Your task to perform on an android device: uninstall "Walmart Shopping & Grocery" Image 0: 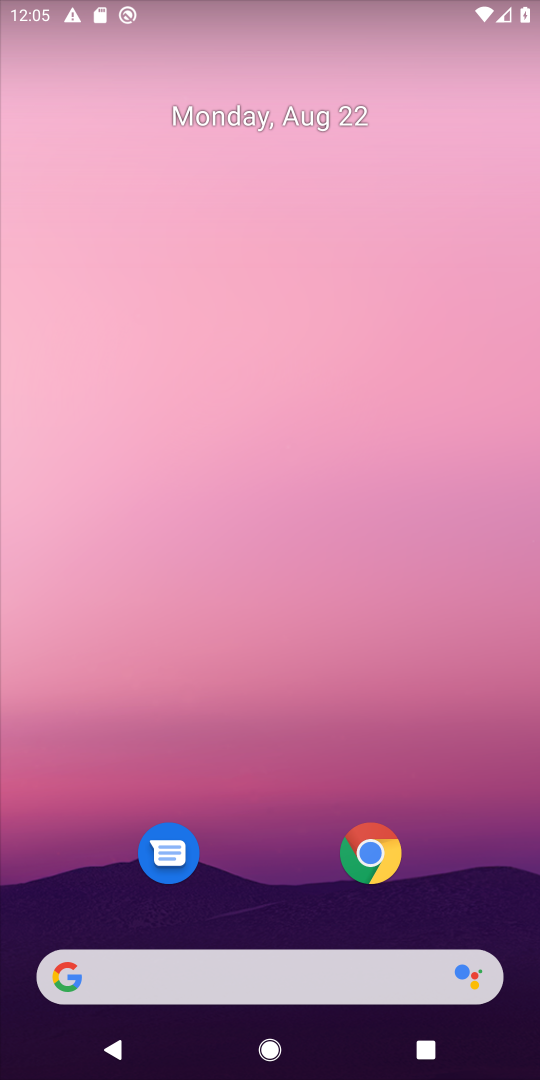
Step 0: drag from (247, 811) to (247, 495)
Your task to perform on an android device: uninstall "Walmart Shopping & Grocery" Image 1: 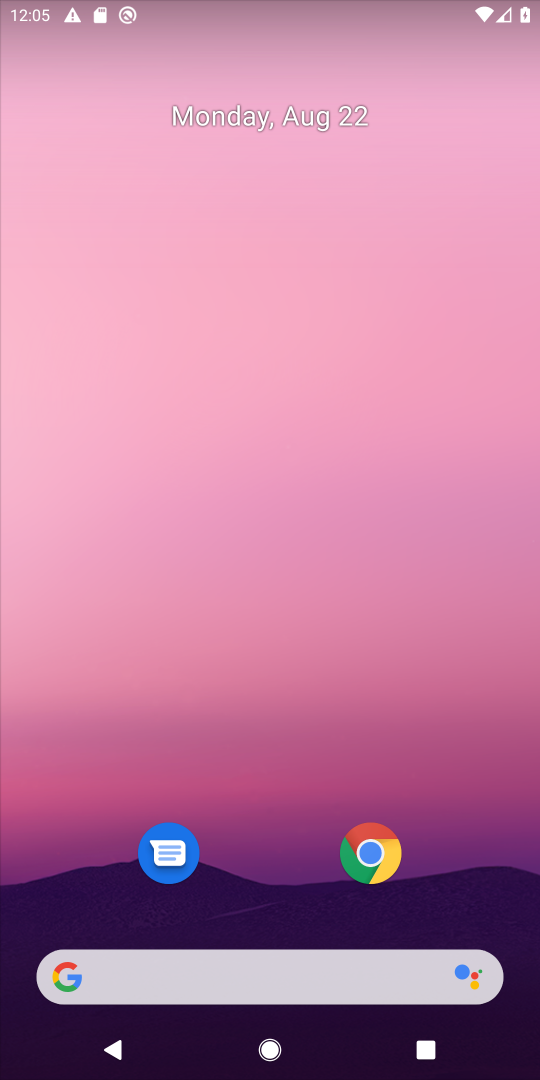
Step 1: drag from (186, 858) to (319, 122)
Your task to perform on an android device: uninstall "Walmart Shopping & Grocery" Image 2: 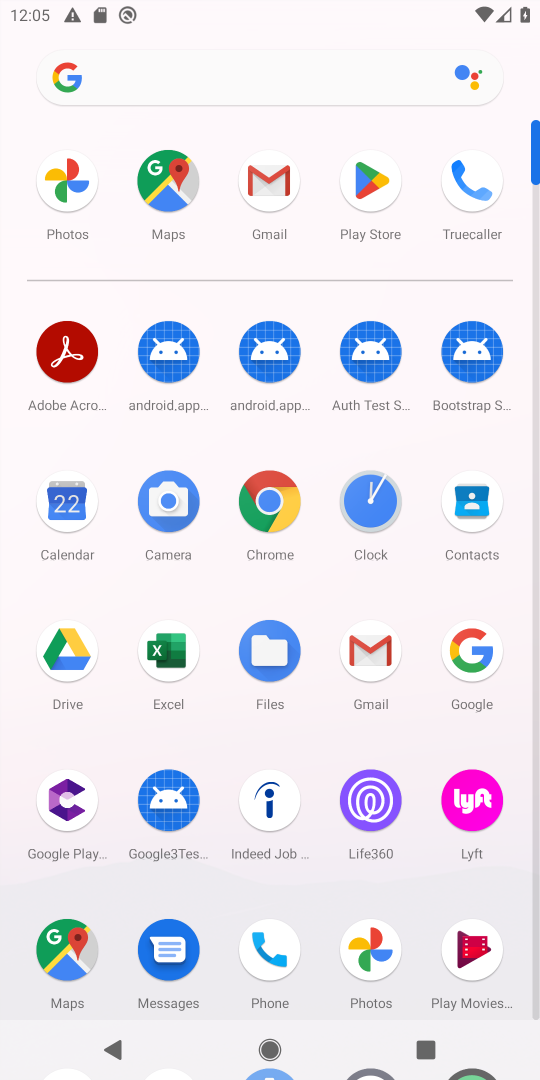
Step 2: click (369, 199)
Your task to perform on an android device: uninstall "Walmart Shopping & Grocery" Image 3: 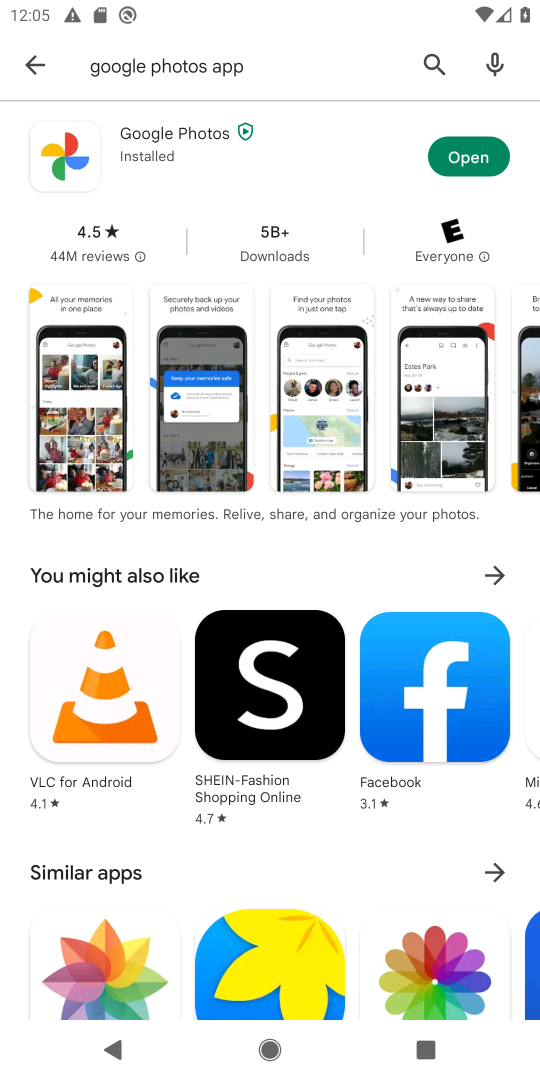
Step 3: click (43, 57)
Your task to perform on an android device: uninstall "Walmart Shopping & Grocery" Image 4: 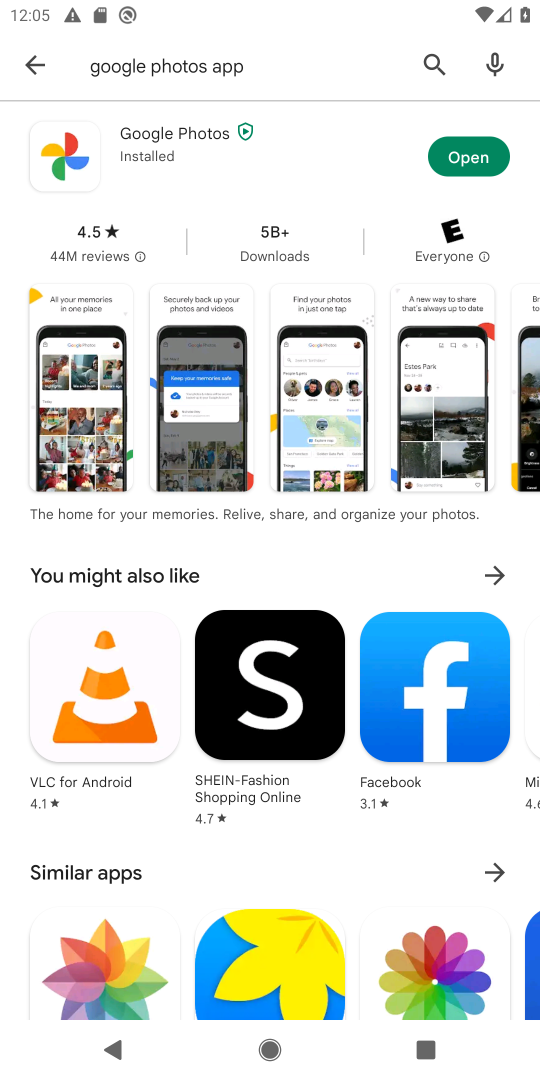
Step 4: click (33, 66)
Your task to perform on an android device: uninstall "Walmart Shopping & Grocery" Image 5: 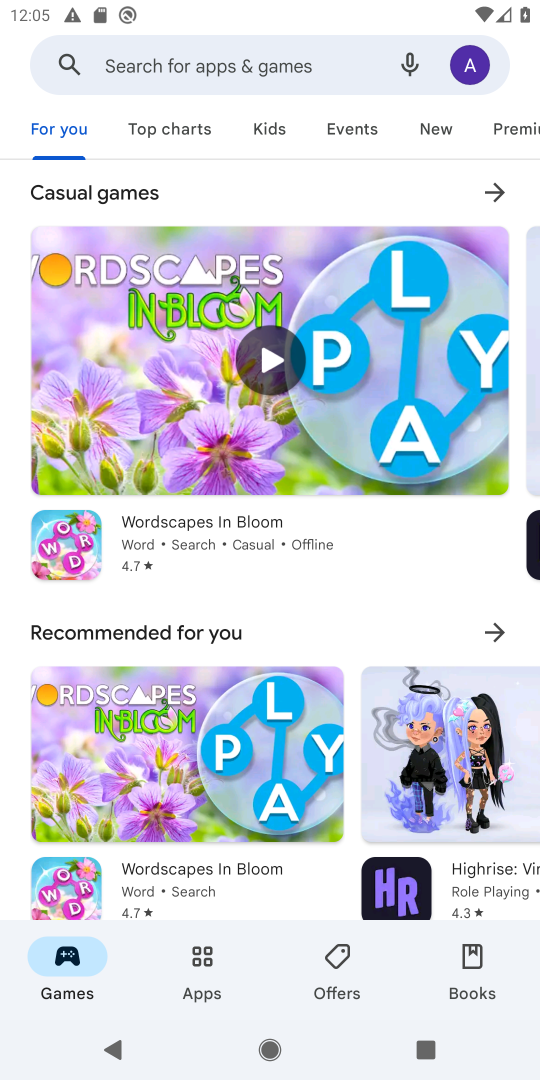
Step 5: click (272, 40)
Your task to perform on an android device: uninstall "Walmart Shopping & Grocery" Image 6: 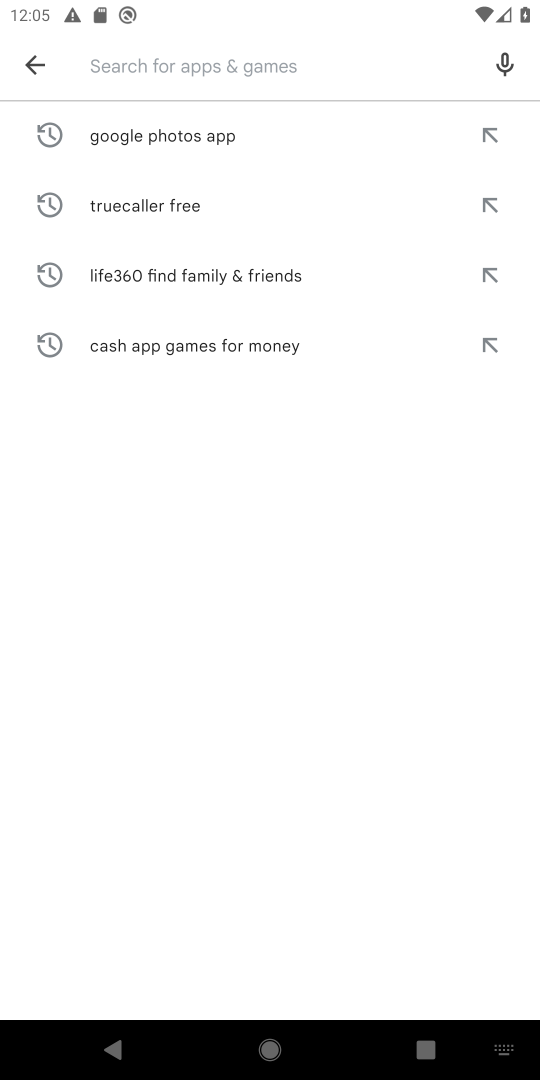
Step 6: type "Walmart Shopping & Grocery "
Your task to perform on an android device: uninstall "Walmart Shopping & Grocery" Image 7: 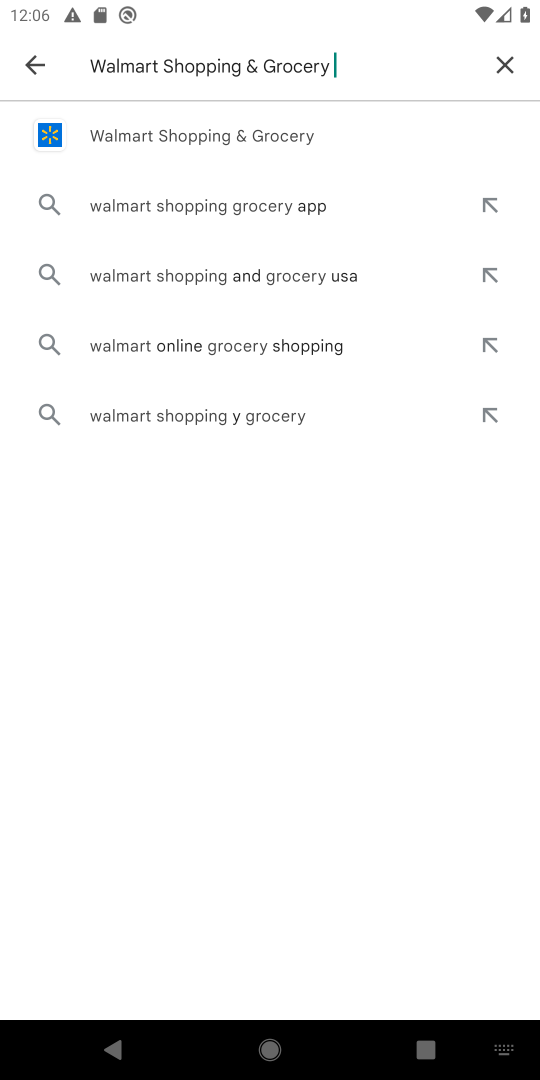
Step 7: click (167, 140)
Your task to perform on an android device: uninstall "Walmart Shopping & Grocery" Image 8: 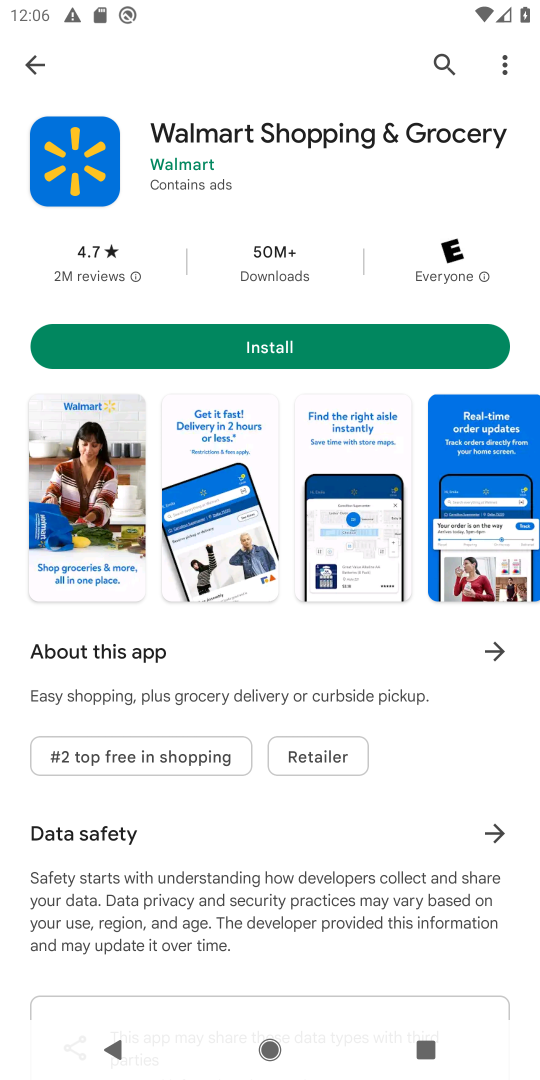
Step 8: task complete